Your task to perform on an android device: toggle notification dots Image 0: 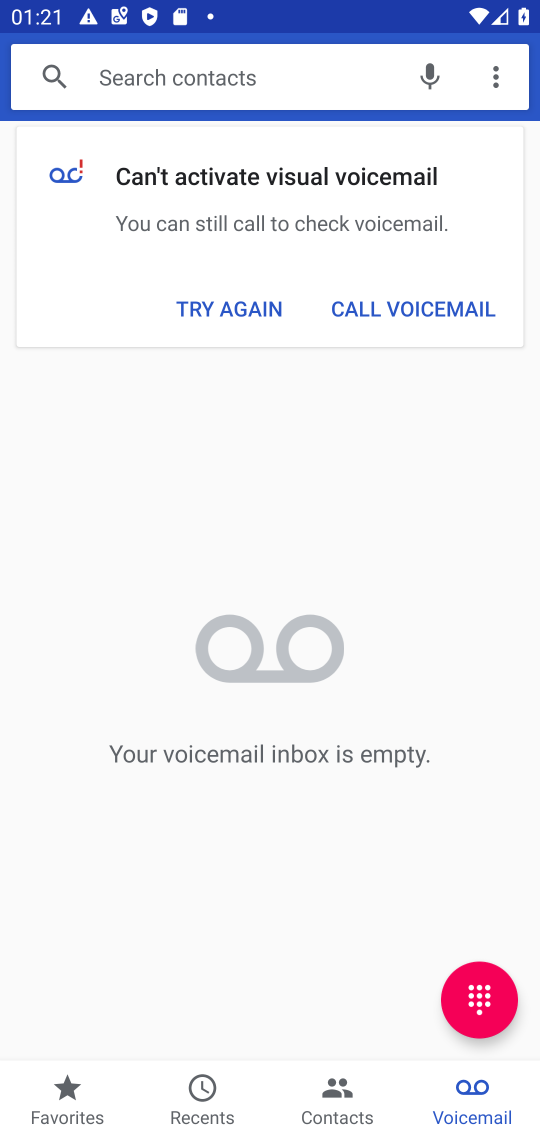
Step 0: press home button
Your task to perform on an android device: toggle notification dots Image 1: 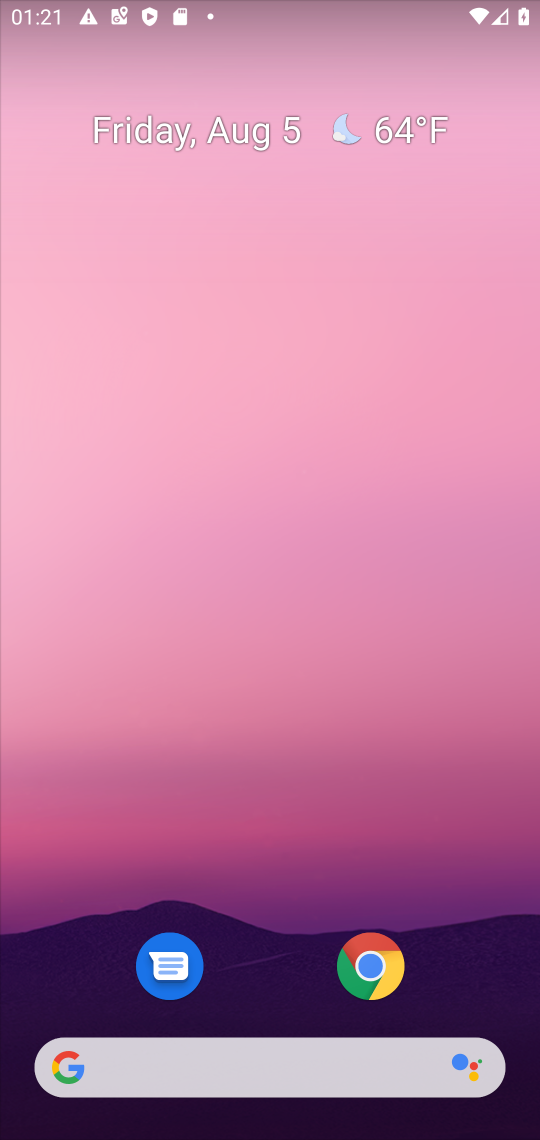
Step 1: drag from (264, 967) to (359, 6)
Your task to perform on an android device: toggle notification dots Image 2: 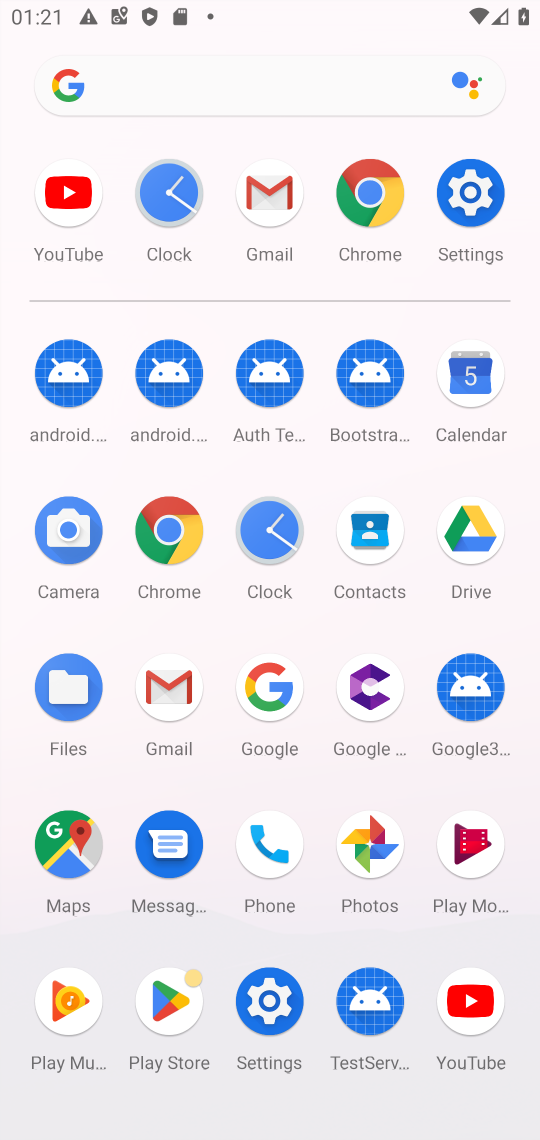
Step 2: click (477, 196)
Your task to perform on an android device: toggle notification dots Image 3: 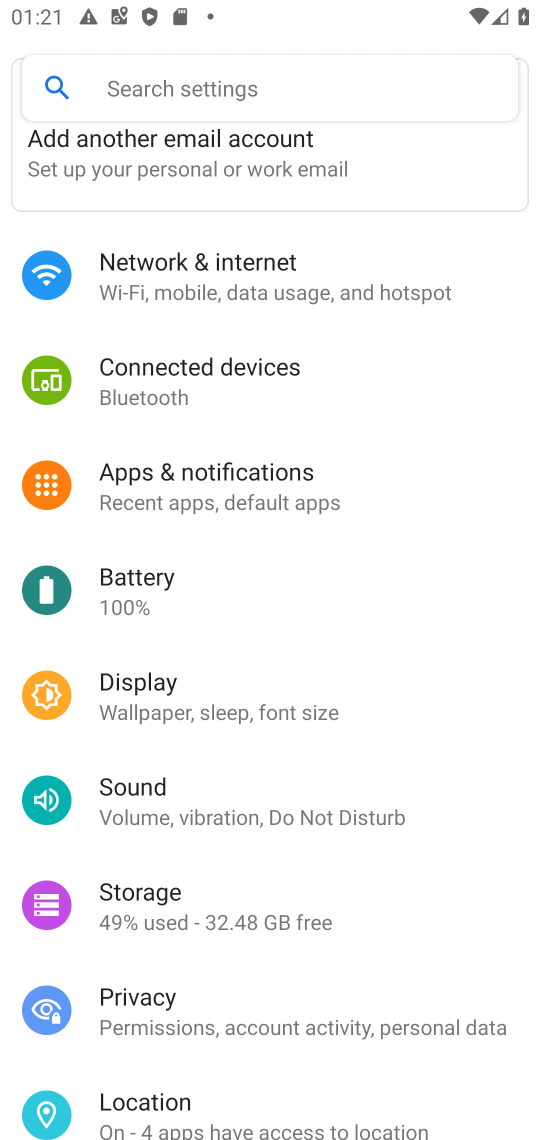
Step 3: click (298, 494)
Your task to perform on an android device: toggle notification dots Image 4: 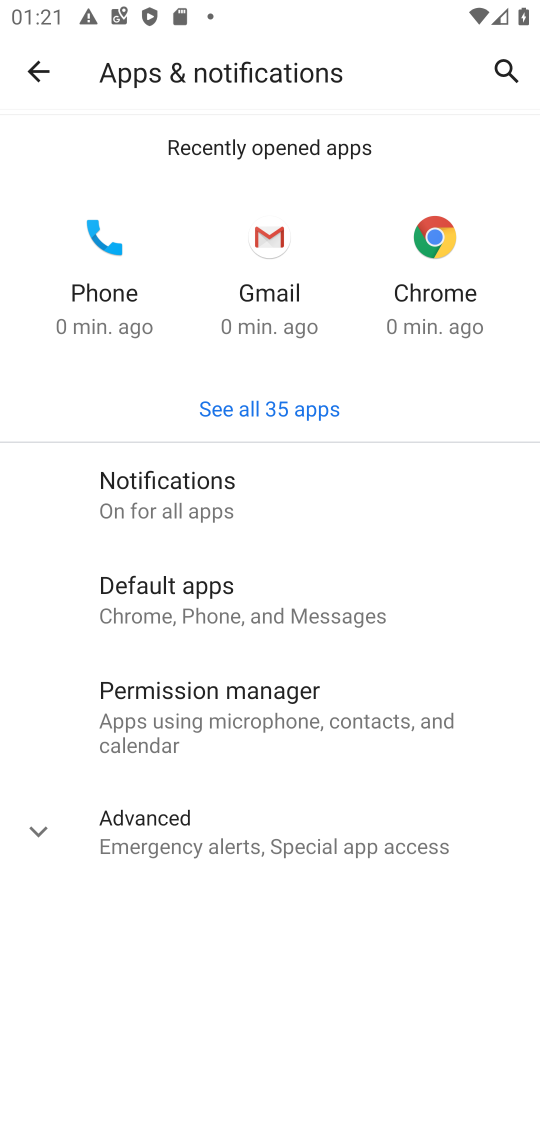
Step 4: click (34, 818)
Your task to perform on an android device: toggle notification dots Image 5: 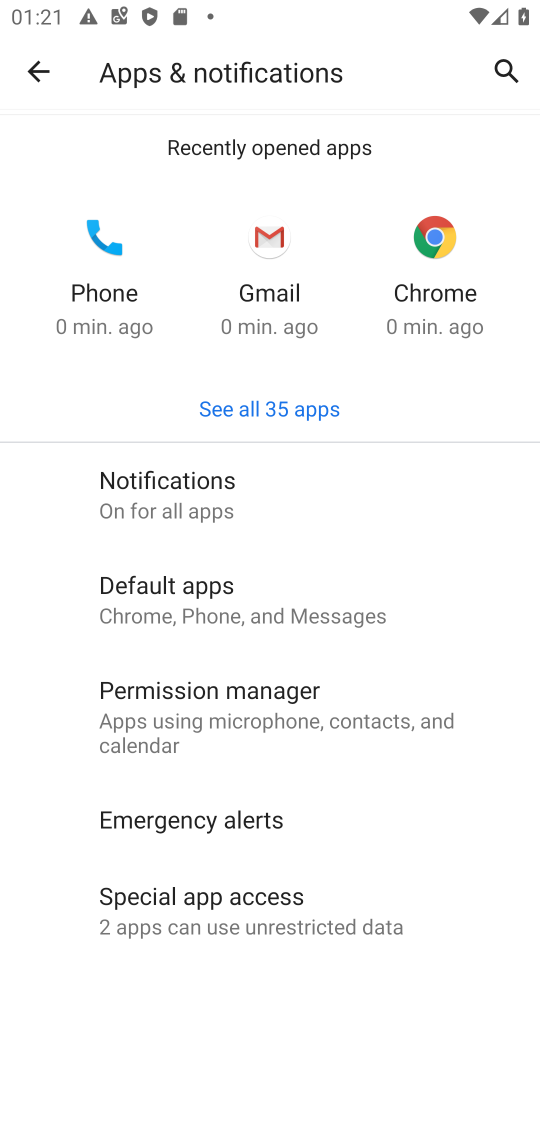
Step 5: drag from (279, 735) to (339, 12)
Your task to perform on an android device: toggle notification dots Image 6: 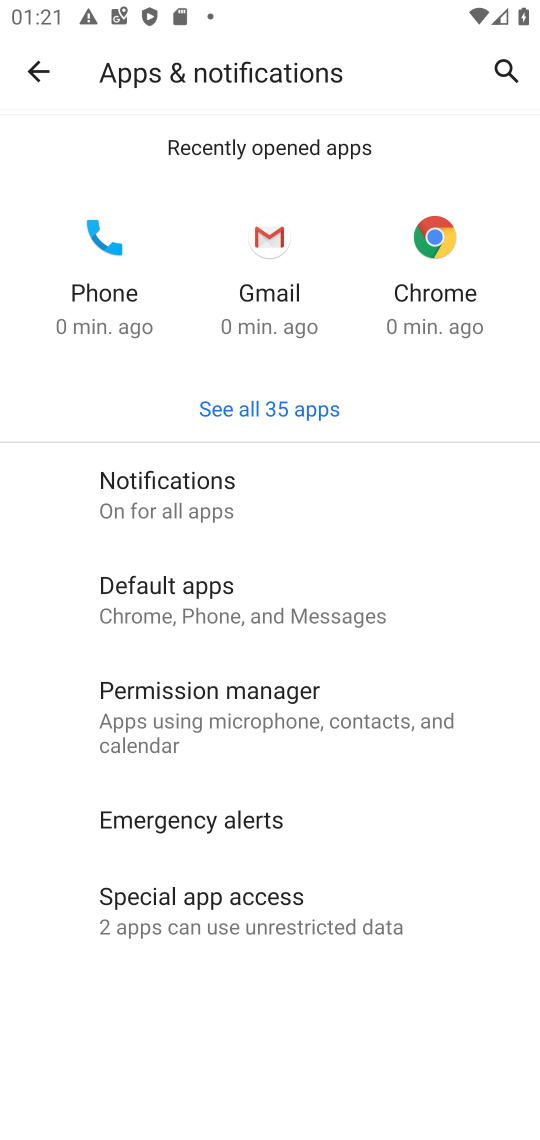
Step 6: drag from (319, 807) to (394, 381)
Your task to perform on an android device: toggle notification dots Image 7: 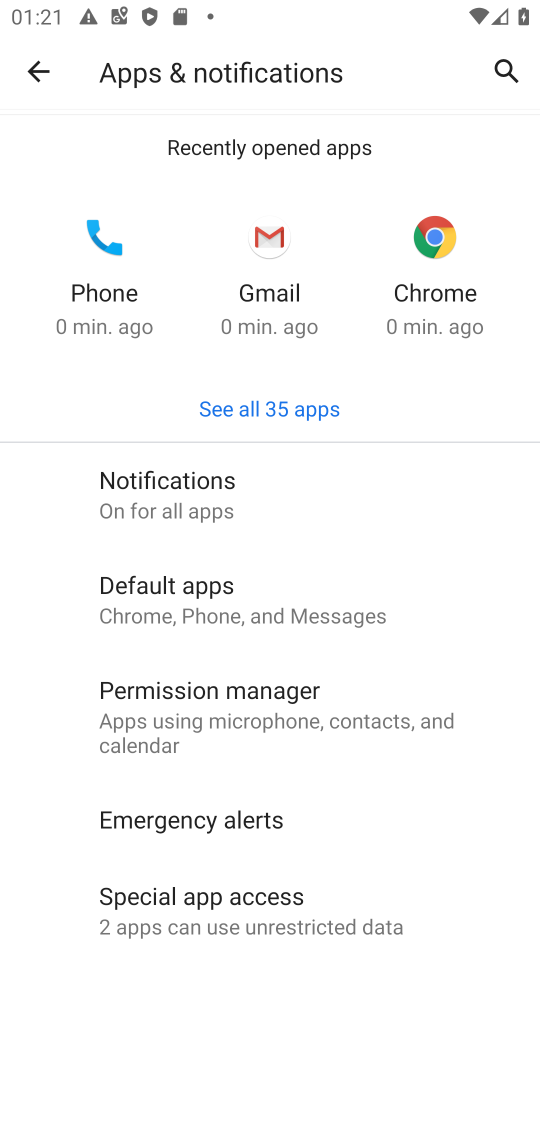
Step 7: click (206, 486)
Your task to perform on an android device: toggle notification dots Image 8: 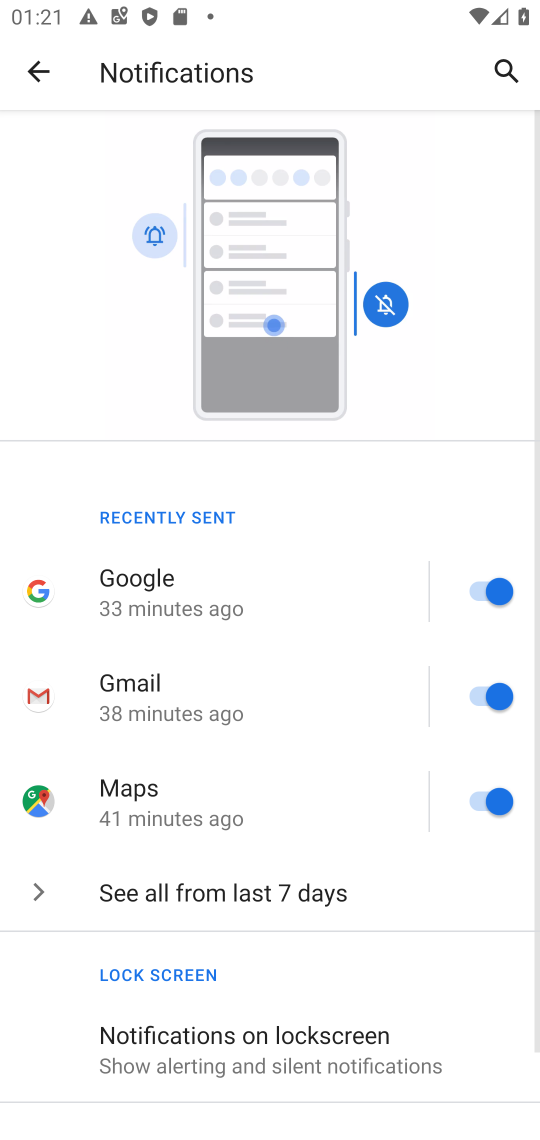
Step 8: drag from (300, 915) to (332, 210)
Your task to perform on an android device: toggle notification dots Image 9: 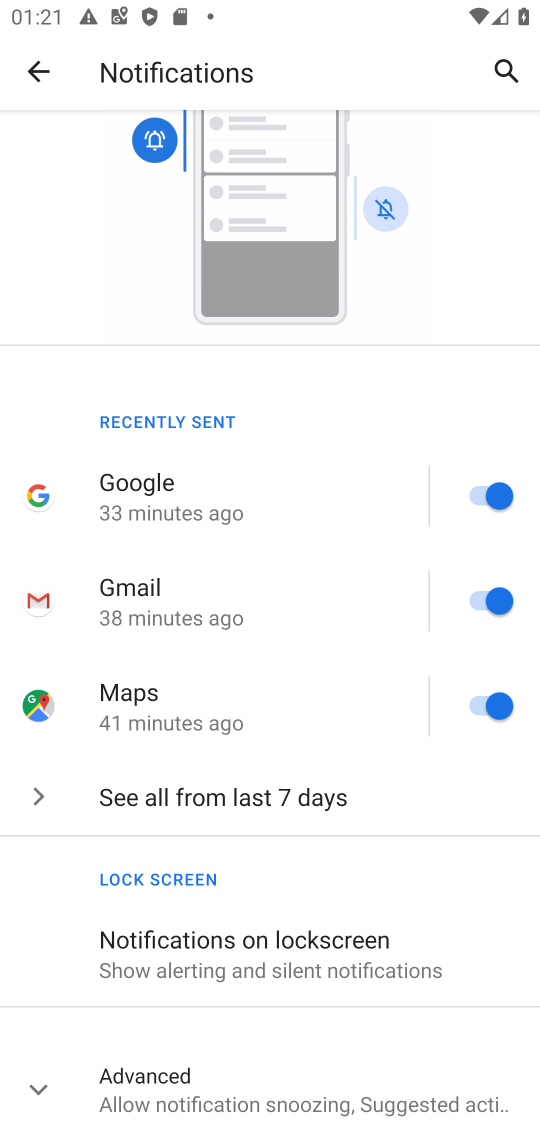
Step 9: click (37, 1089)
Your task to perform on an android device: toggle notification dots Image 10: 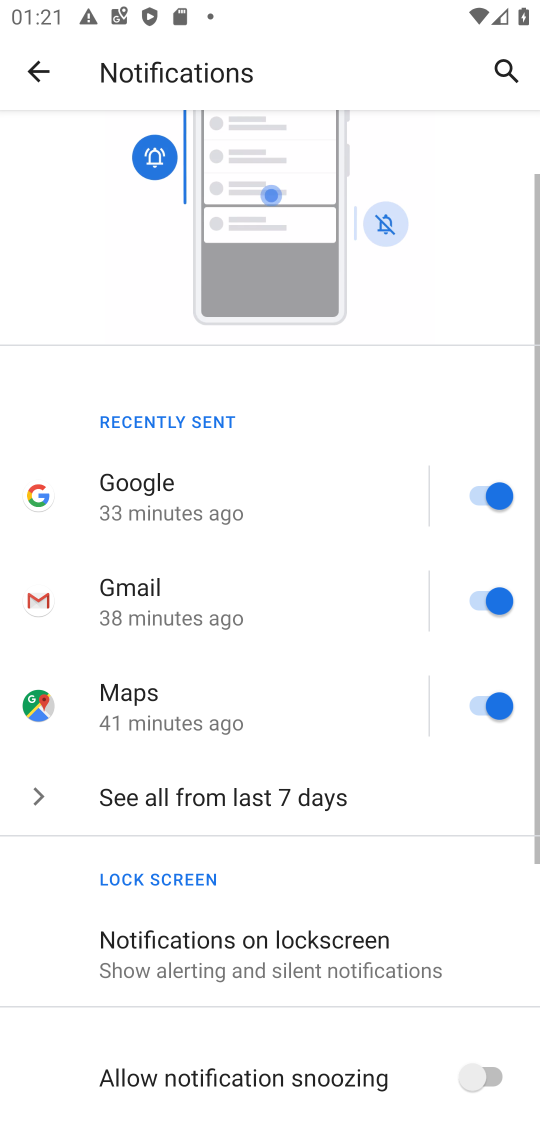
Step 10: drag from (264, 835) to (324, 233)
Your task to perform on an android device: toggle notification dots Image 11: 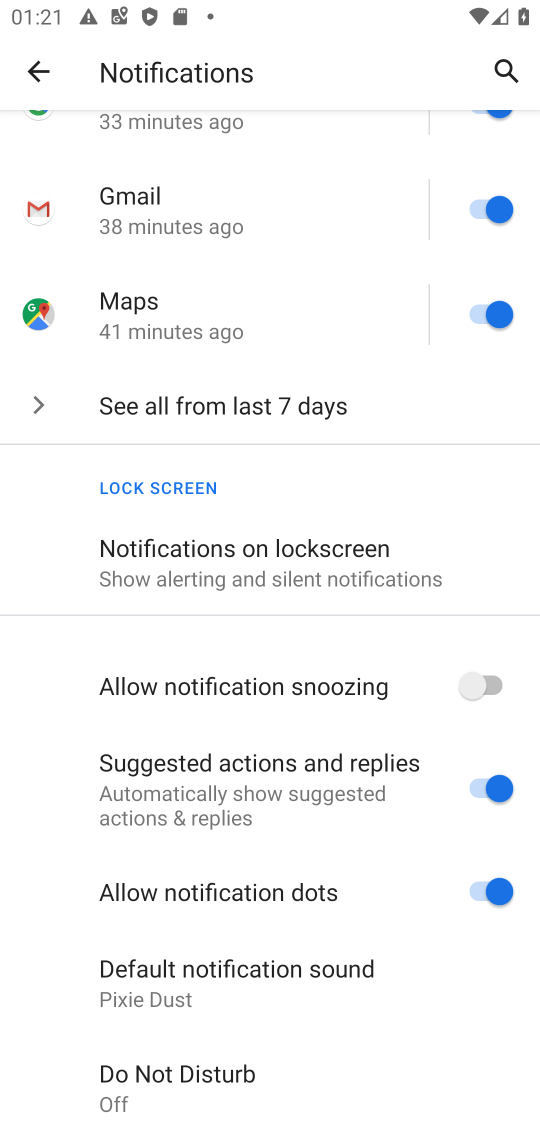
Step 11: click (486, 878)
Your task to perform on an android device: toggle notification dots Image 12: 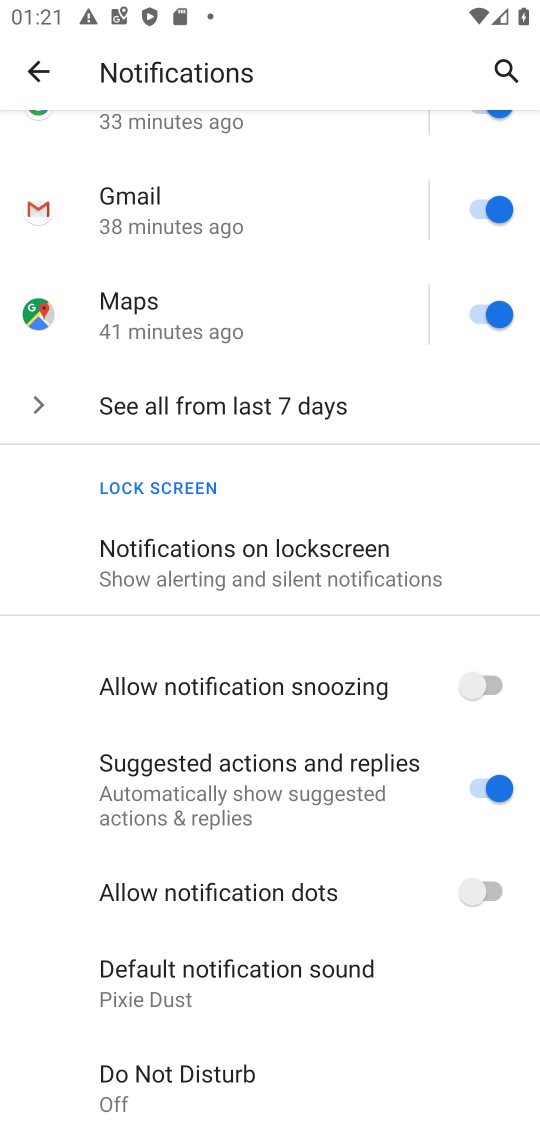
Step 12: task complete